Your task to perform on an android device: What's the weather going to be tomorrow? Image 0: 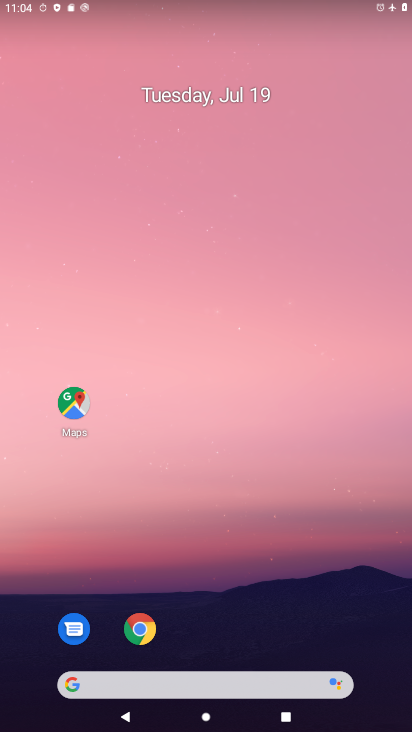
Step 0: drag from (234, 524) to (204, 77)
Your task to perform on an android device: What's the weather going to be tomorrow? Image 1: 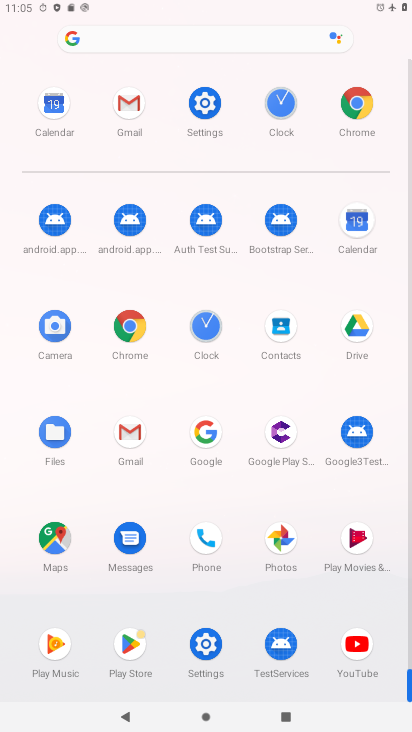
Step 1: click (353, 105)
Your task to perform on an android device: What's the weather going to be tomorrow? Image 2: 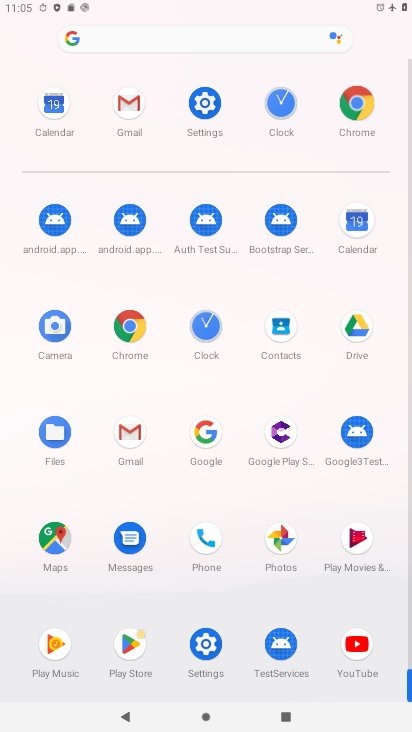
Step 2: click (355, 104)
Your task to perform on an android device: What's the weather going to be tomorrow? Image 3: 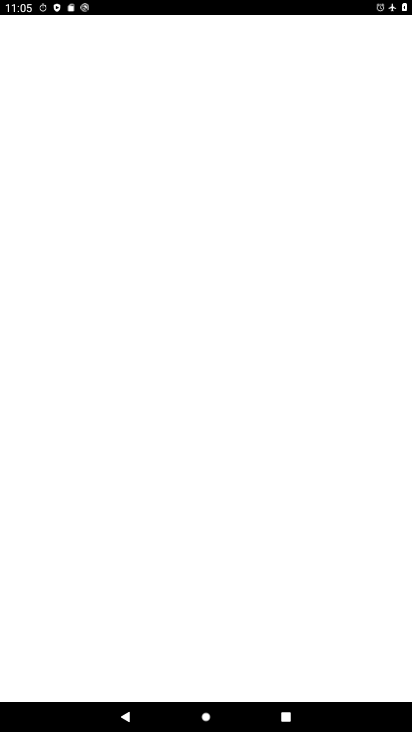
Step 3: click (375, 107)
Your task to perform on an android device: What's the weather going to be tomorrow? Image 4: 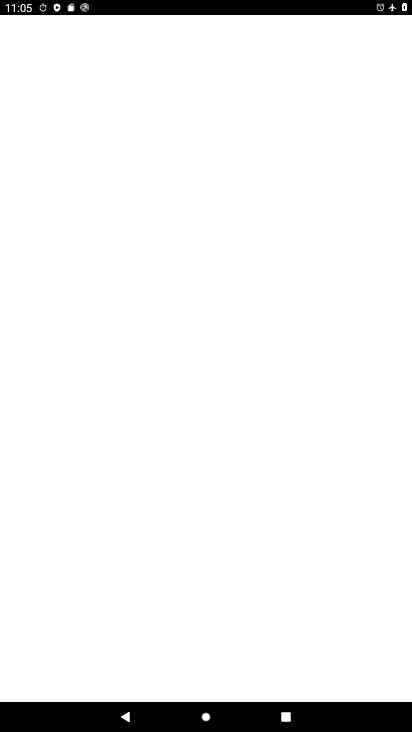
Step 4: click (350, 115)
Your task to perform on an android device: What's the weather going to be tomorrow? Image 5: 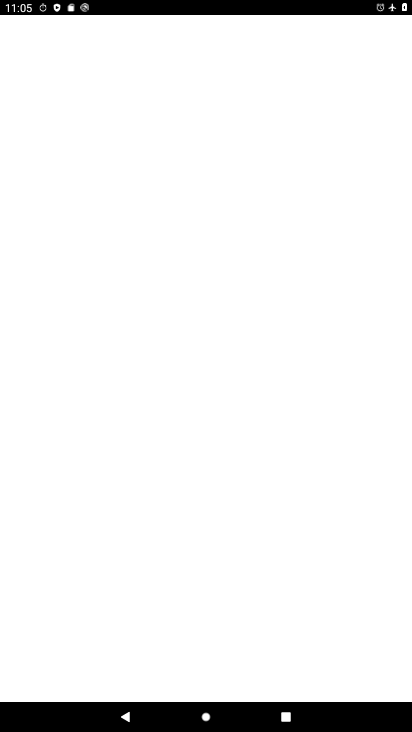
Step 5: click (358, 111)
Your task to perform on an android device: What's the weather going to be tomorrow? Image 6: 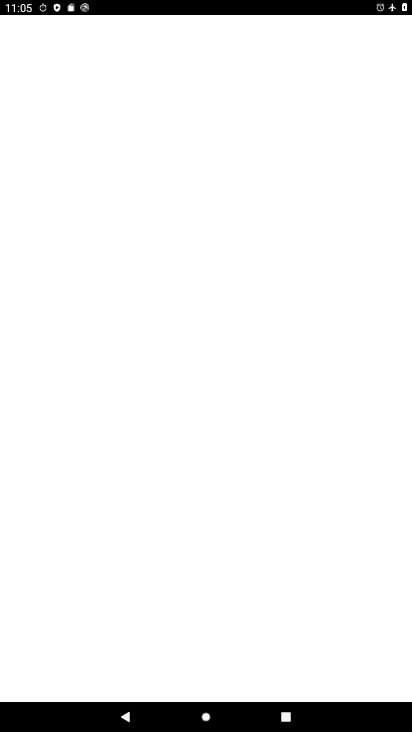
Step 6: click (327, 98)
Your task to perform on an android device: What's the weather going to be tomorrow? Image 7: 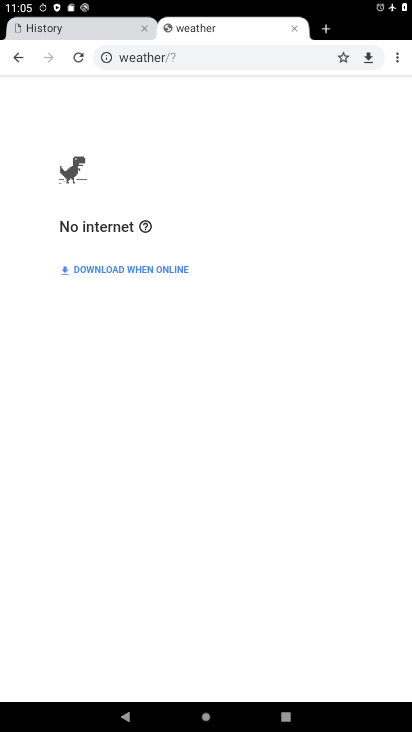
Step 7: task complete